Your task to perform on an android device: turn off location history Image 0: 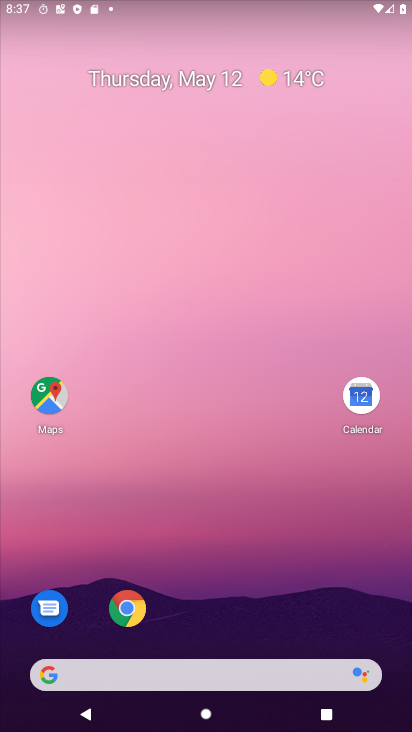
Step 0: drag from (222, 538) to (291, 184)
Your task to perform on an android device: turn off location history Image 1: 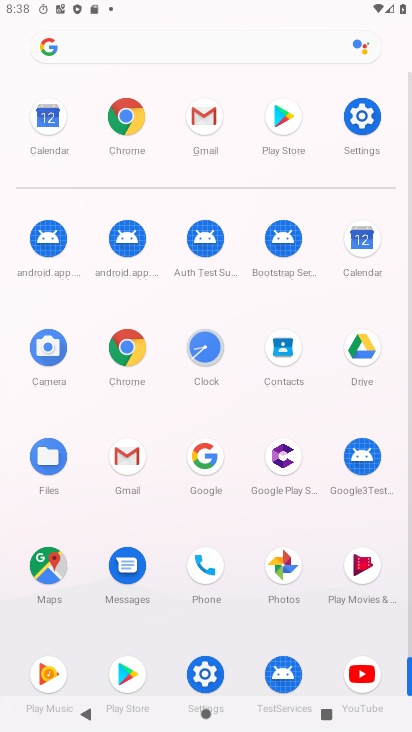
Step 1: click (355, 119)
Your task to perform on an android device: turn off location history Image 2: 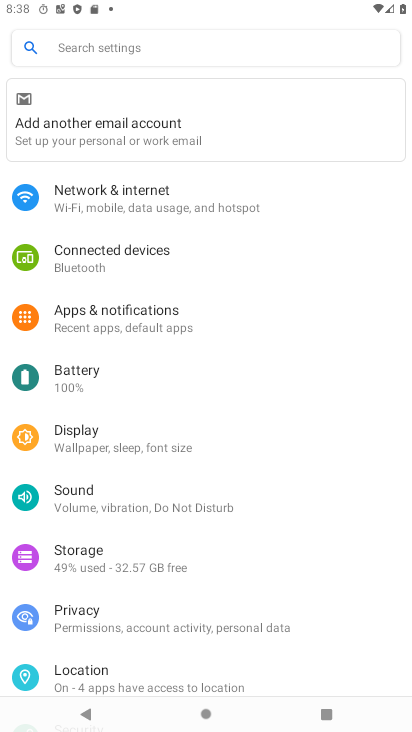
Step 2: click (258, 658)
Your task to perform on an android device: turn off location history Image 3: 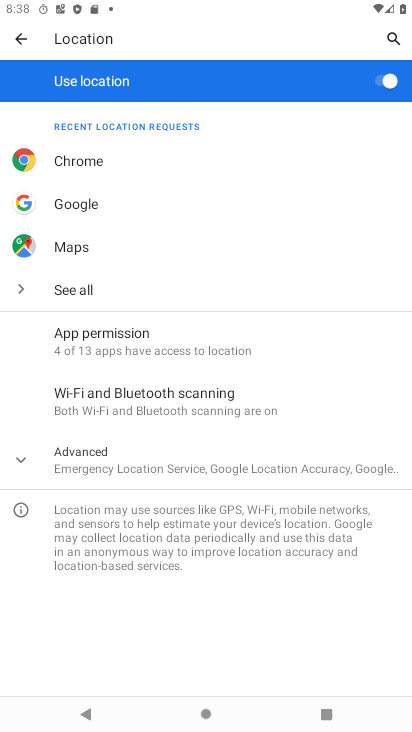
Step 3: click (385, 81)
Your task to perform on an android device: turn off location history Image 4: 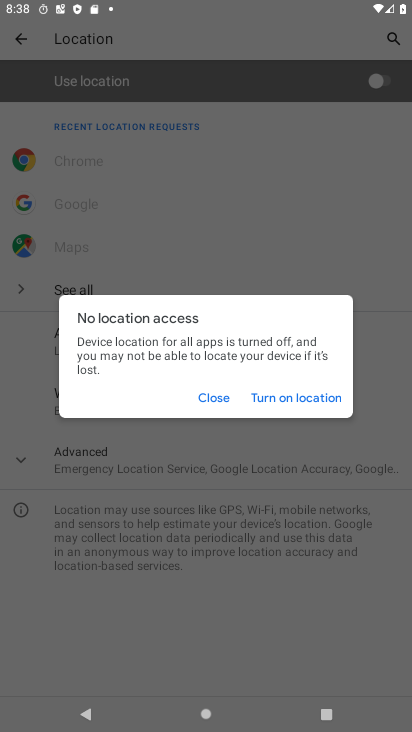
Step 4: click (215, 402)
Your task to perform on an android device: turn off location history Image 5: 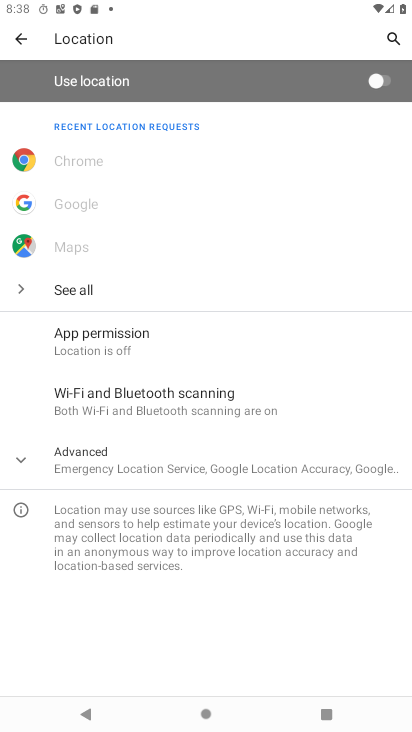
Step 5: task complete